Your task to perform on an android device: Add panasonic triple a to the cart on bestbuy Image 0: 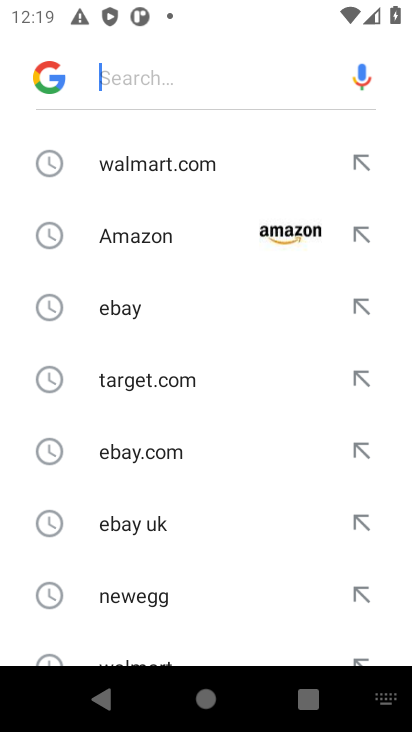
Step 0: click (108, 76)
Your task to perform on an android device: Add panasonic triple a to the cart on bestbuy Image 1: 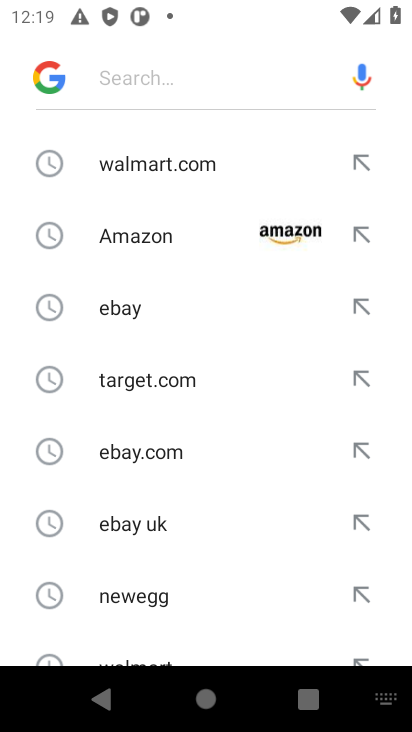
Step 1: type "bestbuy.com"
Your task to perform on an android device: Add panasonic triple a to the cart on bestbuy Image 2: 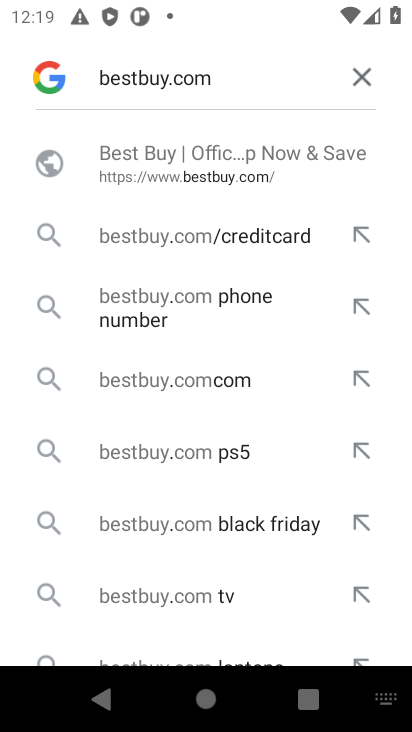
Step 2: click (144, 169)
Your task to perform on an android device: Add panasonic triple a to the cart on bestbuy Image 3: 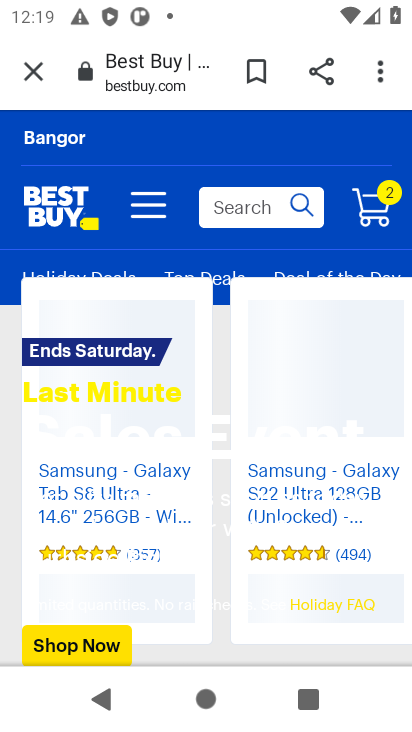
Step 3: click (220, 184)
Your task to perform on an android device: Add panasonic triple a to the cart on bestbuy Image 4: 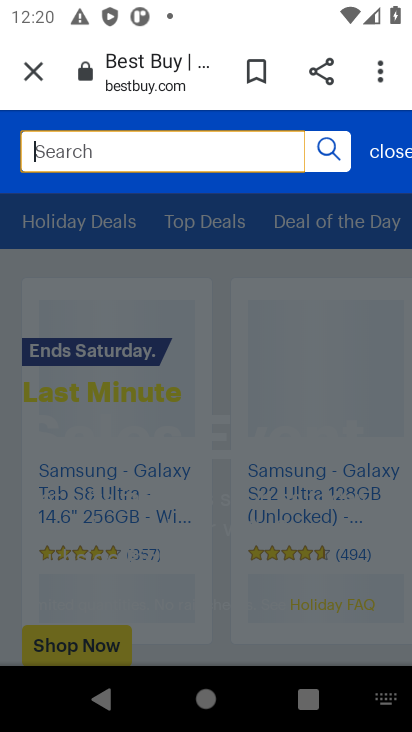
Step 4: type "panasonic triple a"
Your task to perform on an android device: Add panasonic triple a to the cart on bestbuy Image 5: 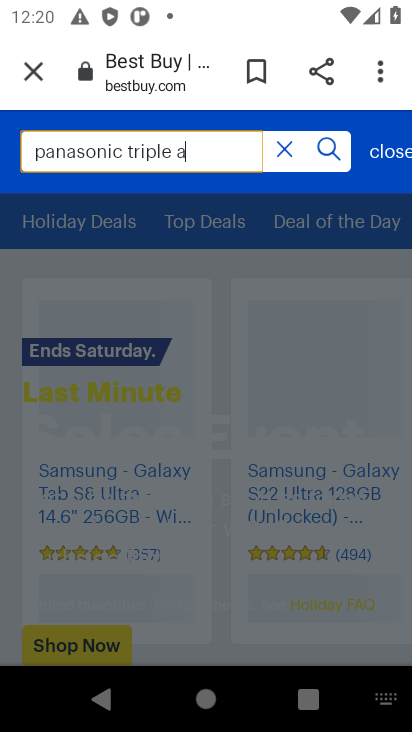
Step 5: click (328, 145)
Your task to perform on an android device: Add panasonic triple a to the cart on bestbuy Image 6: 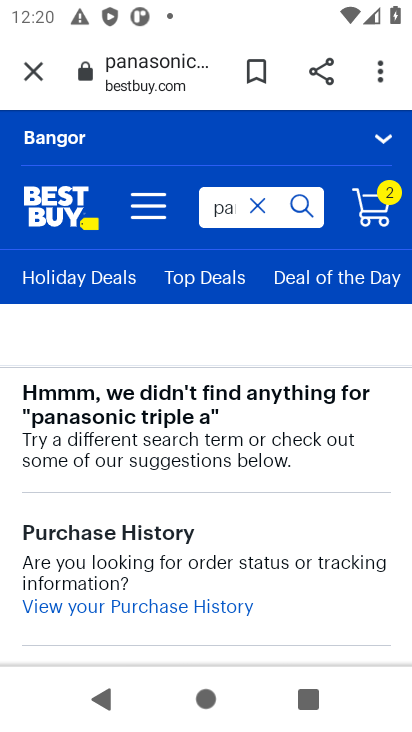
Step 6: task complete